Your task to perform on an android device: see creations saved in the google photos Image 0: 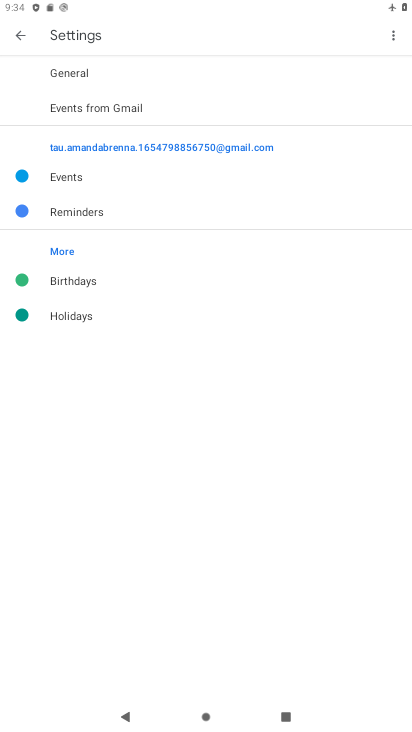
Step 0: press home button
Your task to perform on an android device: see creations saved in the google photos Image 1: 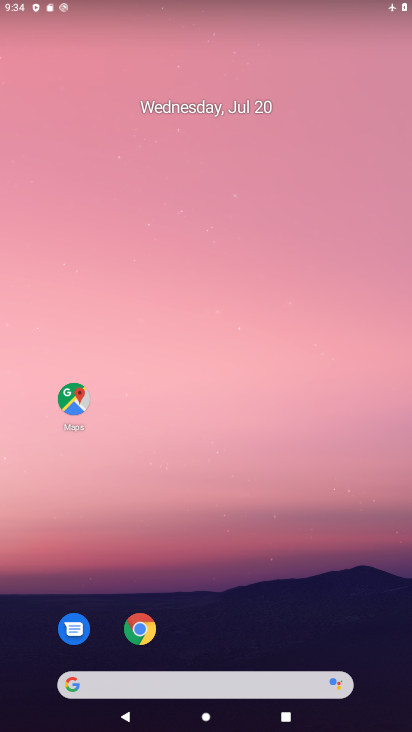
Step 1: drag from (265, 606) to (255, 0)
Your task to perform on an android device: see creations saved in the google photos Image 2: 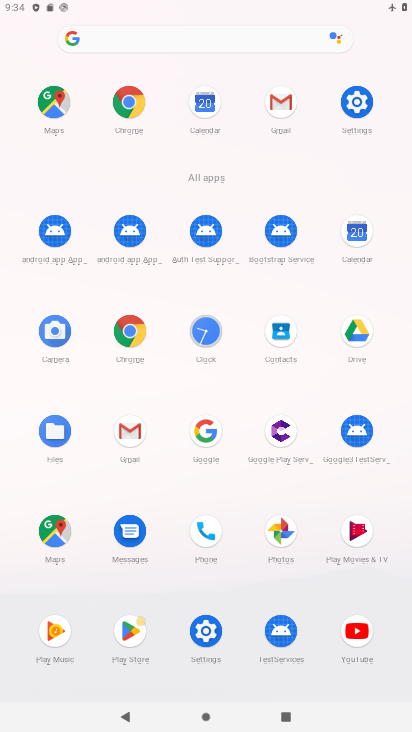
Step 2: click (274, 541)
Your task to perform on an android device: see creations saved in the google photos Image 3: 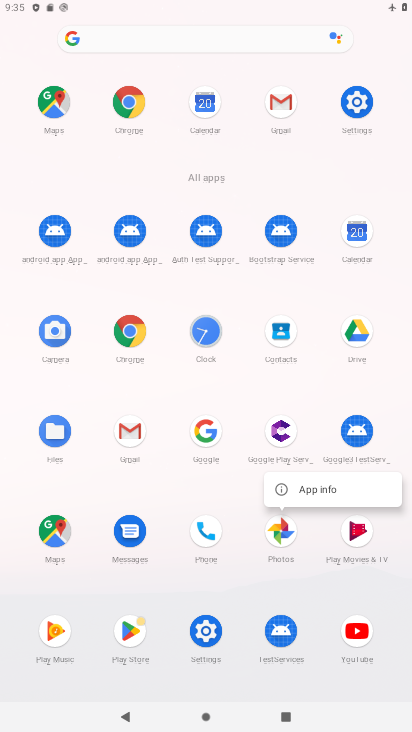
Step 3: click (291, 534)
Your task to perform on an android device: see creations saved in the google photos Image 4: 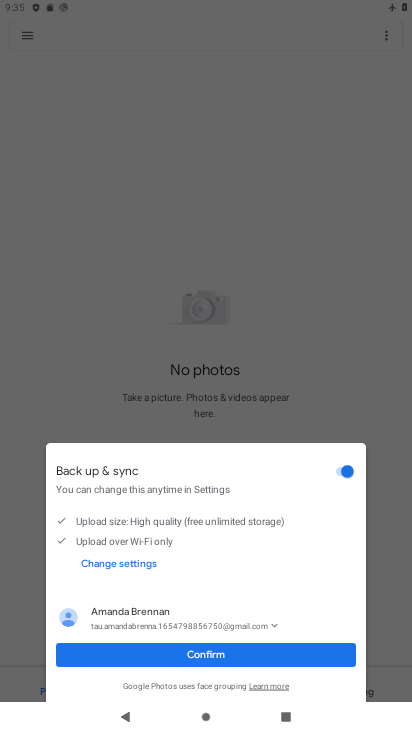
Step 4: click (208, 665)
Your task to perform on an android device: see creations saved in the google photos Image 5: 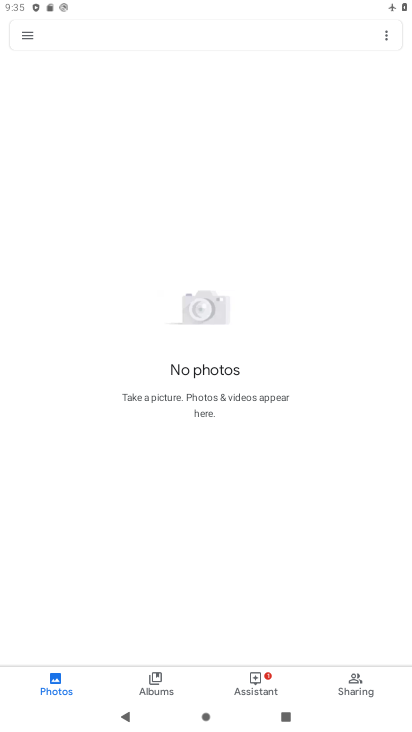
Step 5: click (132, 698)
Your task to perform on an android device: see creations saved in the google photos Image 6: 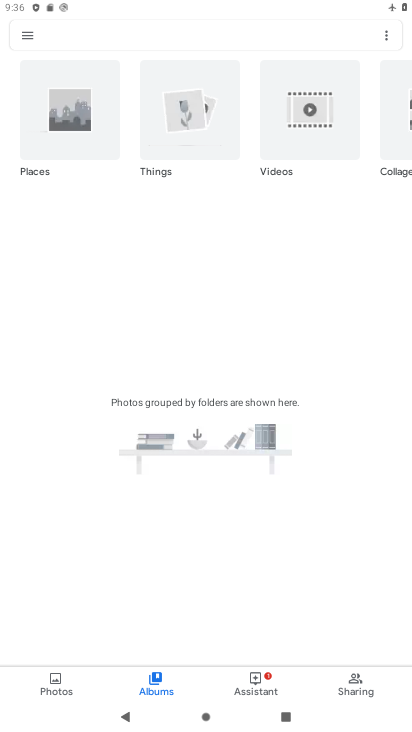
Step 6: task complete